Your task to perform on an android device: allow notifications from all sites in the chrome app Image 0: 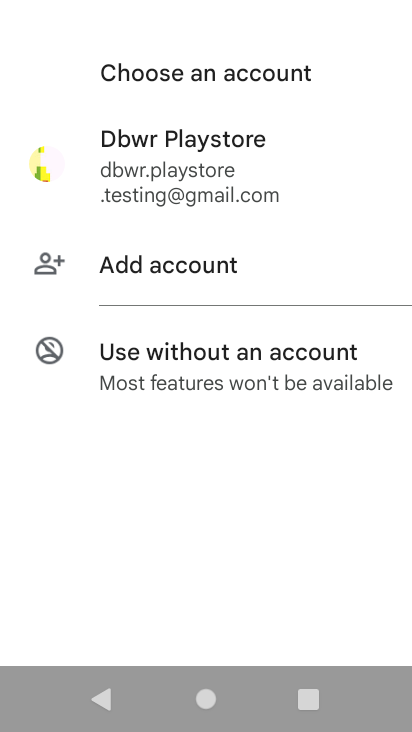
Step 0: press home button
Your task to perform on an android device: allow notifications from all sites in the chrome app Image 1: 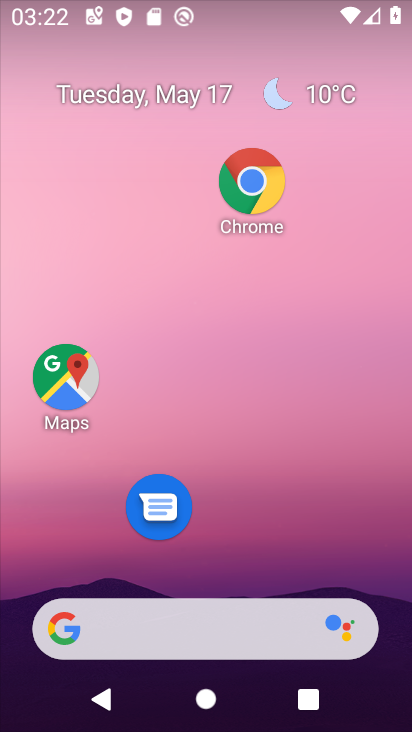
Step 1: click (249, 192)
Your task to perform on an android device: allow notifications from all sites in the chrome app Image 2: 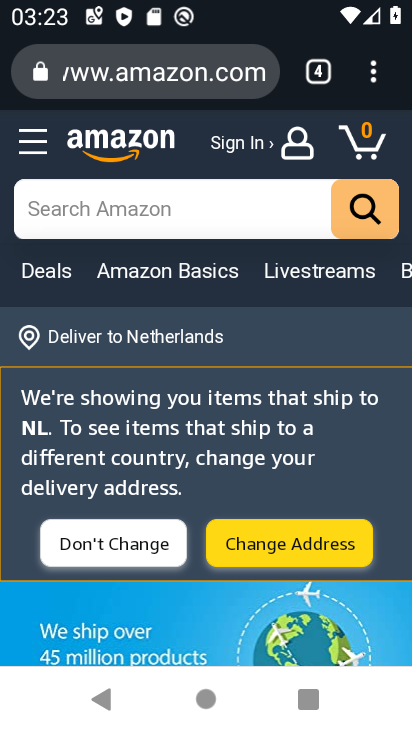
Step 2: click (363, 64)
Your task to perform on an android device: allow notifications from all sites in the chrome app Image 3: 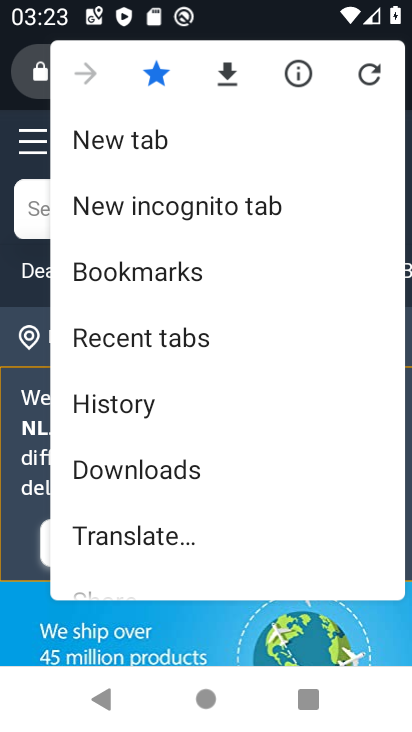
Step 3: drag from (120, 484) to (200, 194)
Your task to perform on an android device: allow notifications from all sites in the chrome app Image 4: 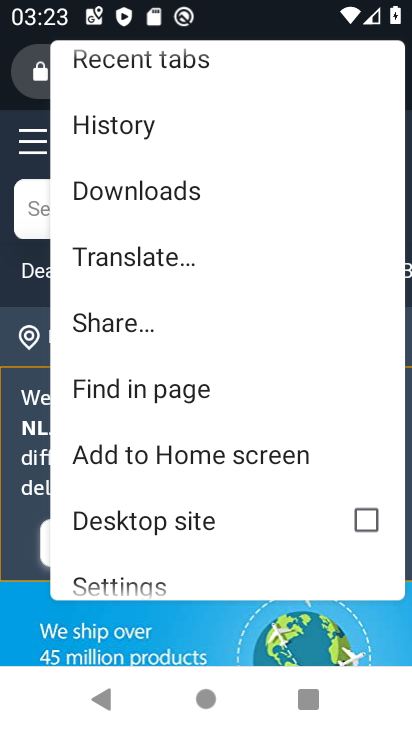
Step 4: drag from (127, 565) to (212, 331)
Your task to perform on an android device: allow notifications from all sites in the chrome app Image 5: 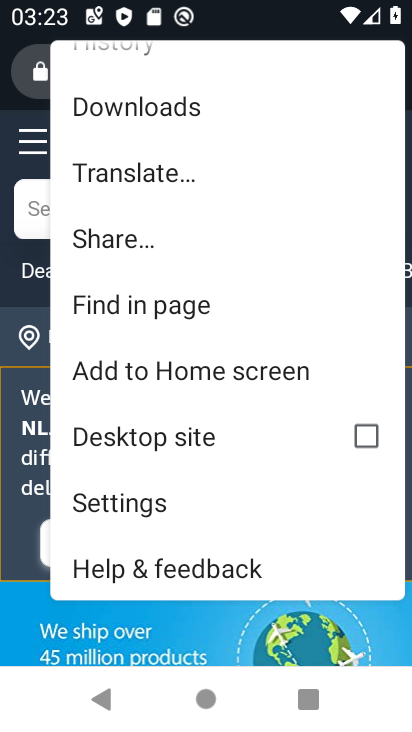
Step 5: click (108, 488)
Your task to perform on an android device: allow notifications from all sites in the chrome app Image 6: 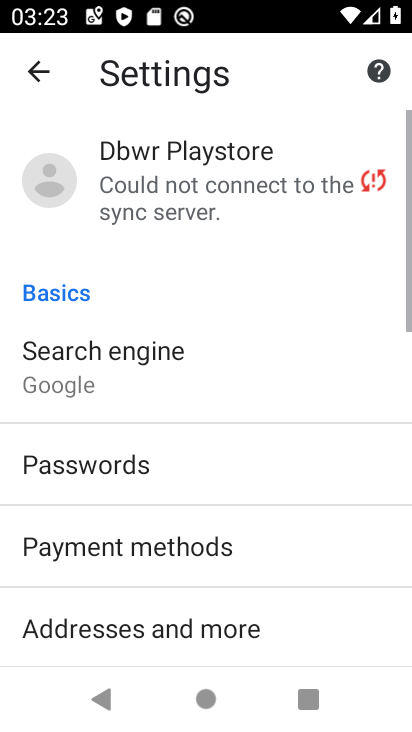
Step 6: drag from (112, 516) to (171, 272)
Your task to perform on an android device: allow notifications from all sites in the chrome app Image 7: 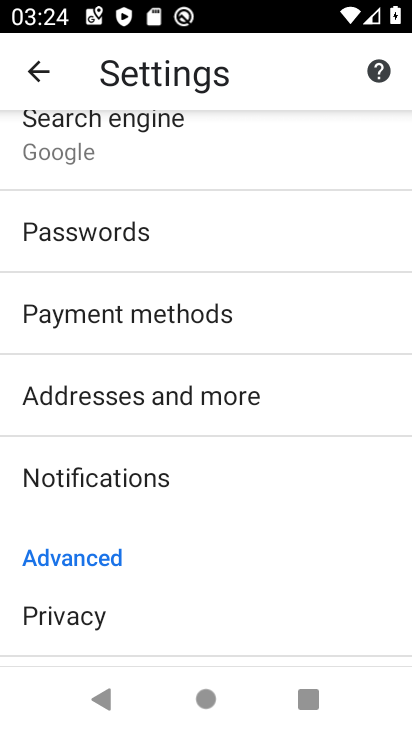
Step 7: click (89, 453)
Your task to perform on an android device: allow notifications from all sites in the chrome app Image 8: 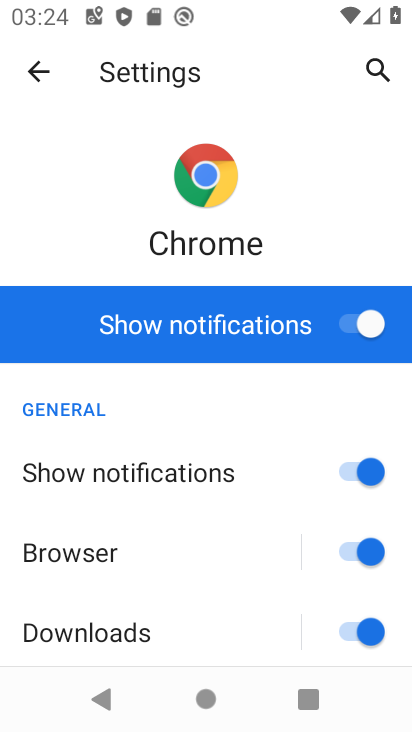
Step 8: task complete